Your task to perform on an android device: Open the map Image 0: 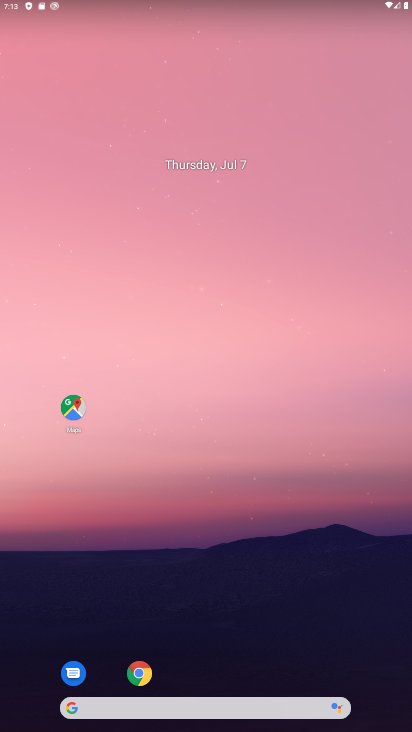
Step 0: click (70, 408)
Your task to perform on an android device: Open the map Image 1: 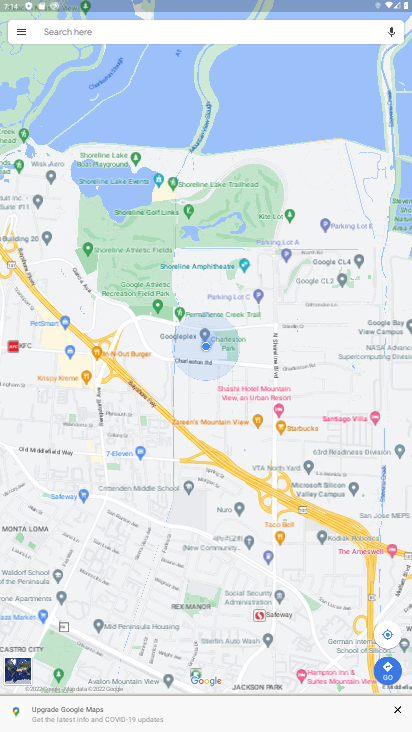
Step 1: task complete